Your task to perform on an android device: Toggle the flashlight Image 0: 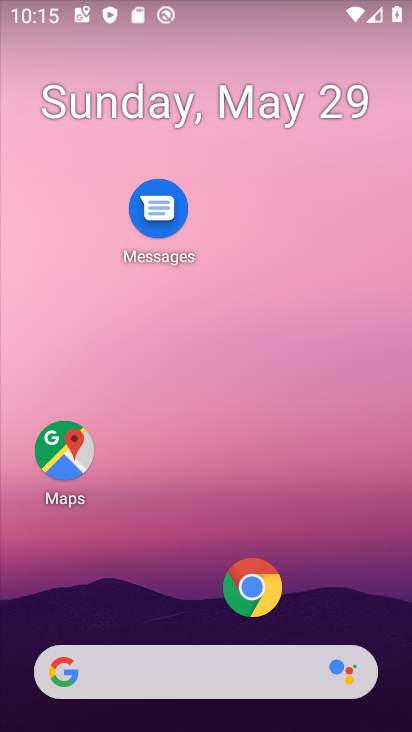
Step 0: drag from (156, 618) to (310, 37)
Your task to perform on an android device: Toggle the flashlight Image 1: 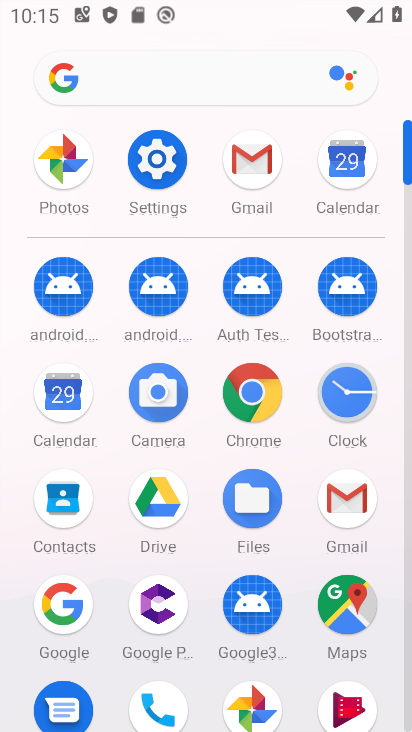
Step 1: click (156, 160)
Your task to perform on an android device: Toggle the flashlight Image 2: 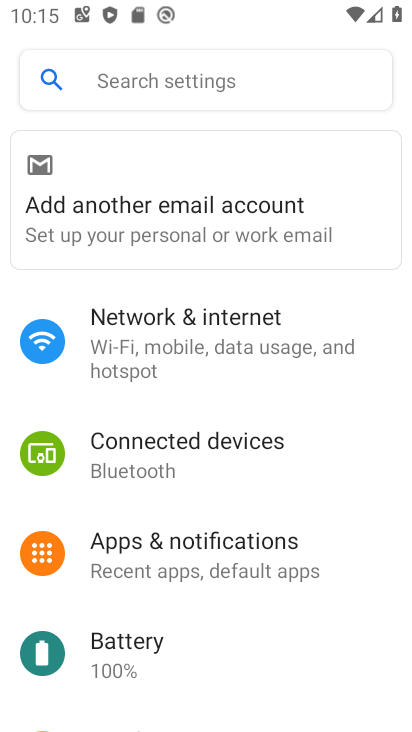
Step 2: click (163, 82)
Your task to perform on an android device: Toggle the flashlight Image 3: 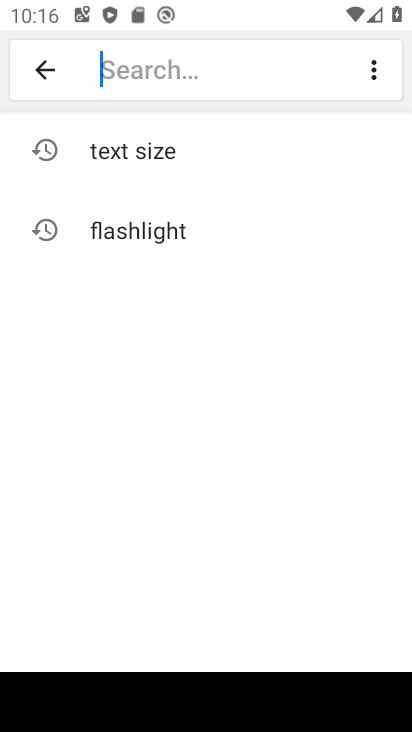
Step 3: type "flashlight"
Your task to perform on an android device: Toggle the flashlight Image 4: 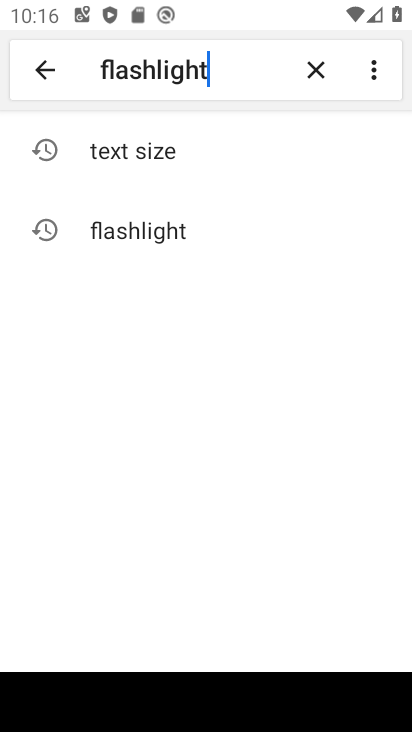
Step 4: click (161, 232)
Your task to perform on an android device: Toggle the flashlight Image 5: 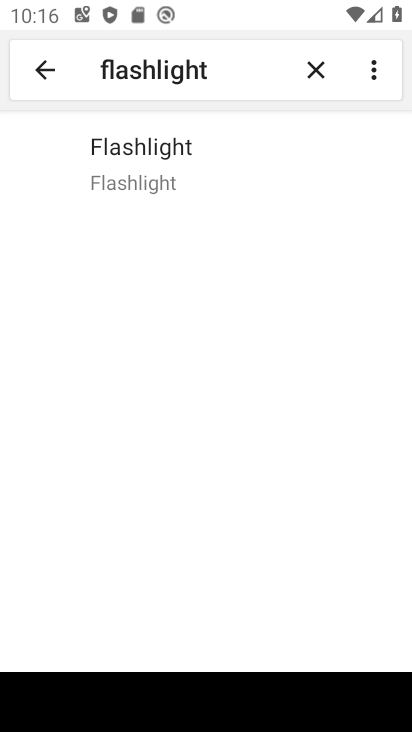
Step 5: click (145, 135)
Your task to perform on an android device: Toggle the flashlight Image 6: 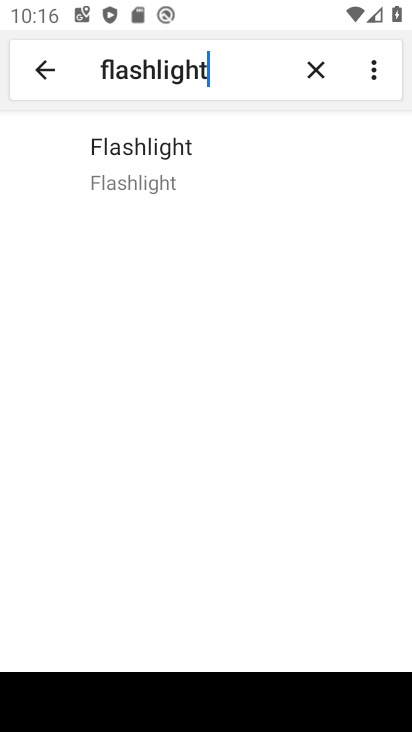
Step 6: task complete